Your task to perform on an android device: Open Youtube and go to "Your channel" Image 0: 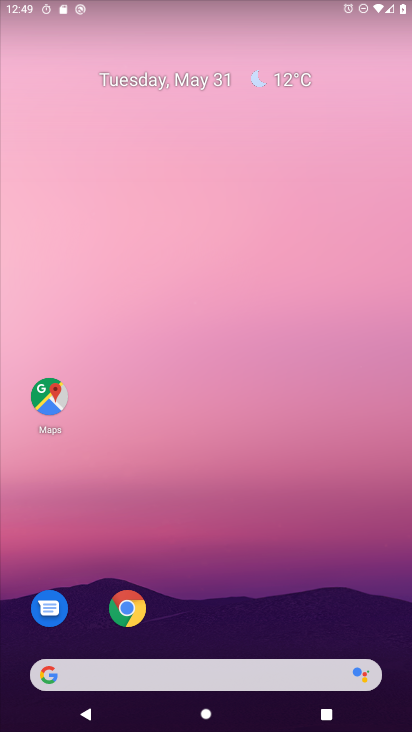
Step 0: drag from (284, 645) to (305, 49)
Your task to perform on an android device: Open Youtube and go to "Your channel" Image 1: 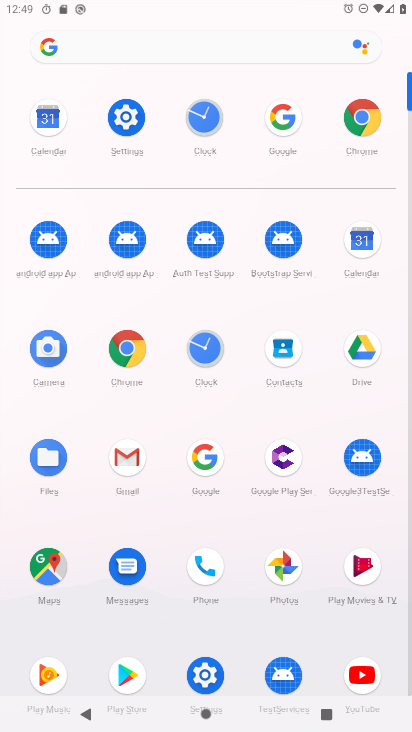
Step 1: click (364, 668)
Your task to perform on an android device: Open Youtube and go to "Your channel" Image 2: 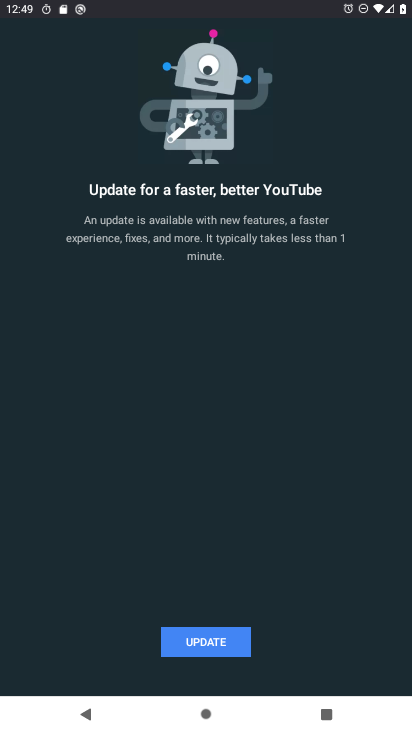
Step 2: click (200, 645)
Your task to perform on an android device: Open Youtube and go to "Your channel" Image 3: 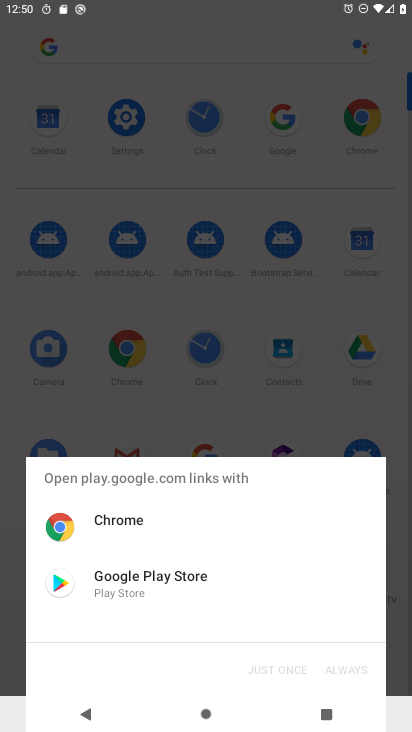
Step 3: click (124, 590)
Your task to perform on an android device: Open Youtube and go to "Your channel" Image 4: 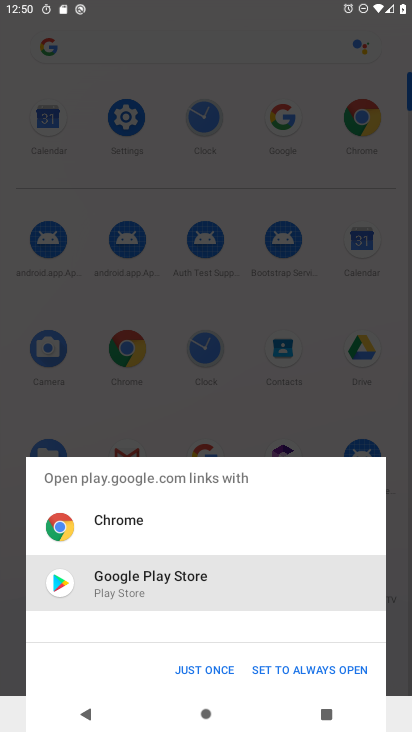
Step 4: click (202, 667)
Your task to perform on an android device: Open Youtube and go to "Your channel" Image 5: 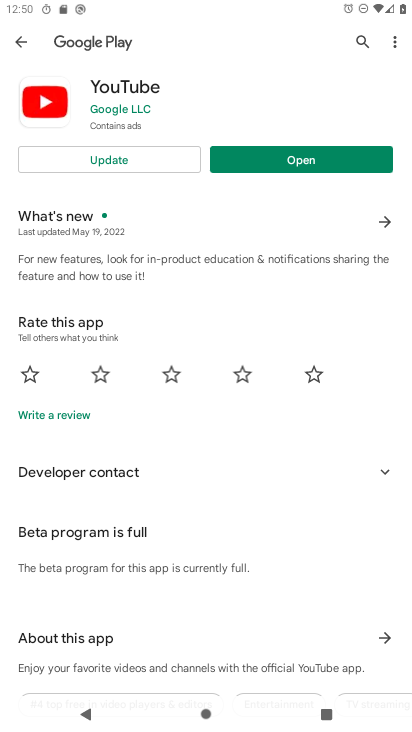
Step 5: click (125, 152)
Your task to perform on an android device: Open Youtube and go to "Your channel" Image 6: 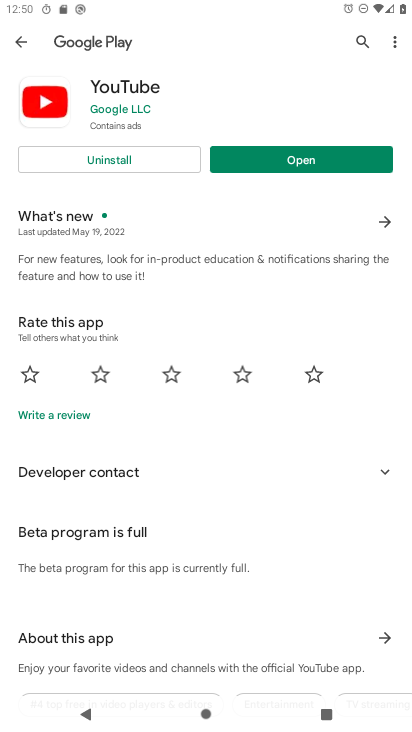
Step 6: click (256, 159)
Your task to perform on an android device: Open Youtube and go to "Your channel" Image 7: 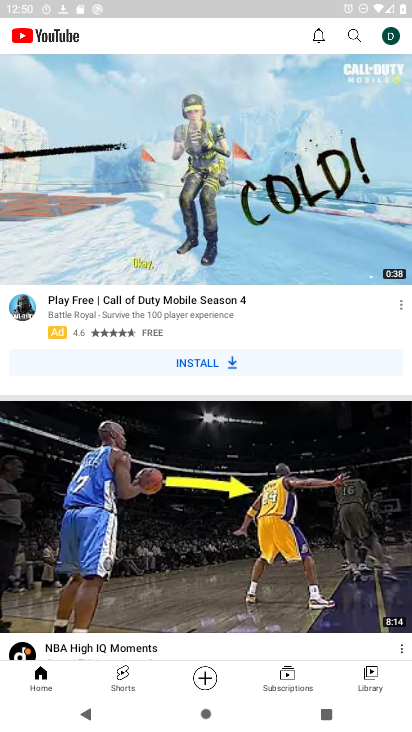
Step 7: click (389, 39)
Your task to perform on an android device: Open Youtube and go to "Your channel" Image 8: 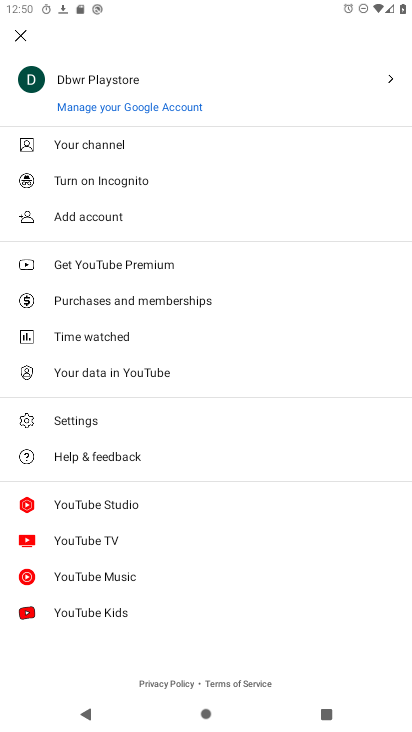
Step 8: click (105, 149)
Your task to perform on an android device: Open Youtube and go to "Your channel" Image 9: 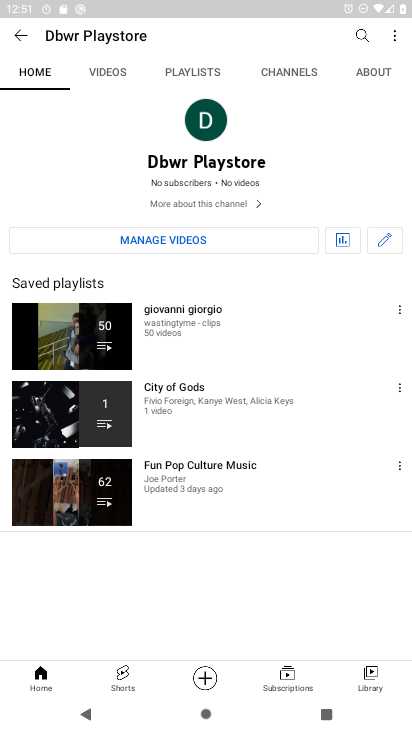
Step 9: task complete